Your task to perform on an android device: toggle data saver in the chrome app Image 0: 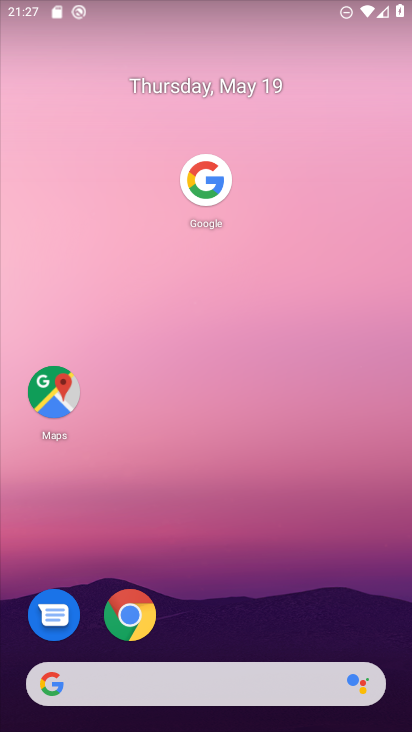
Step 0: click (132, 618)
Your task to perform on an android device: toggle data saver in the chrome app Image 1: 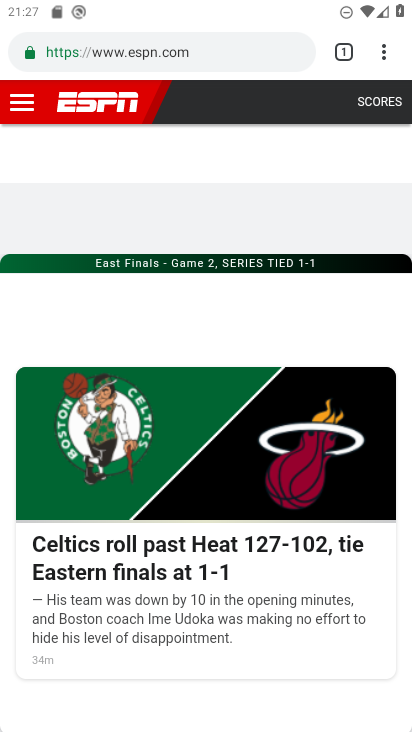
Step 1: click (377, 57)
Your task to perform on an android device: toggle data saver in the chrome app Image 2: 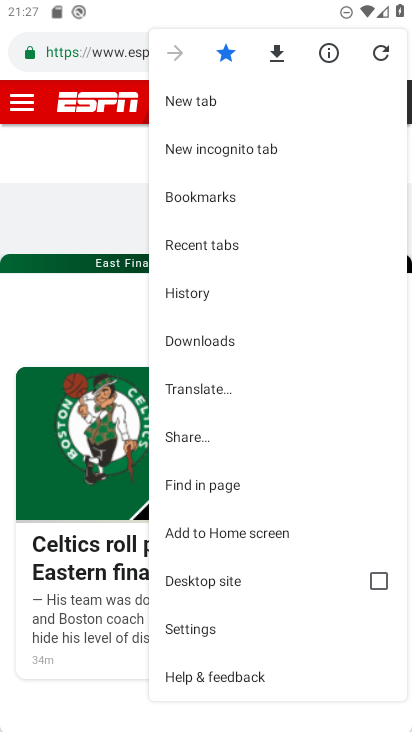
Step 2: click (225, 619)
Your task to perform on an android device: toggle data saver in the chrome app Image 3: 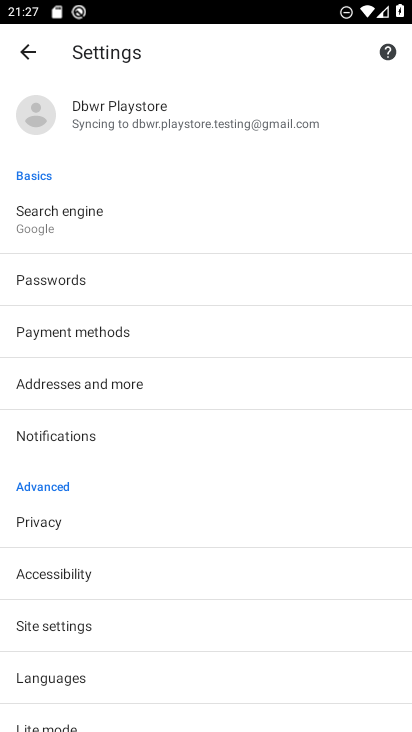
Step 3: drag from (71, 648) to (67, 449)
Your task to perform on an android device: toggle data saver in the chrome app Image 4: 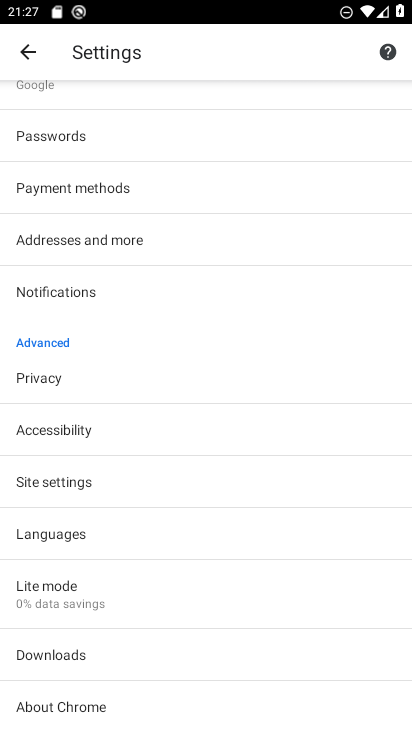
Step 4: click (63, 581)
Your task to perform on an android device: toggle data saver in the chrome app Image 5: 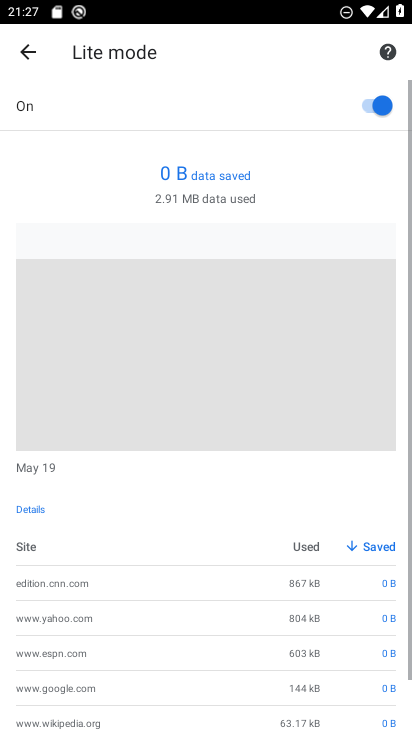
Step 5: click (373, 116)
Your task to perform on an android device: toggle data saver in the chrome app Image 6: 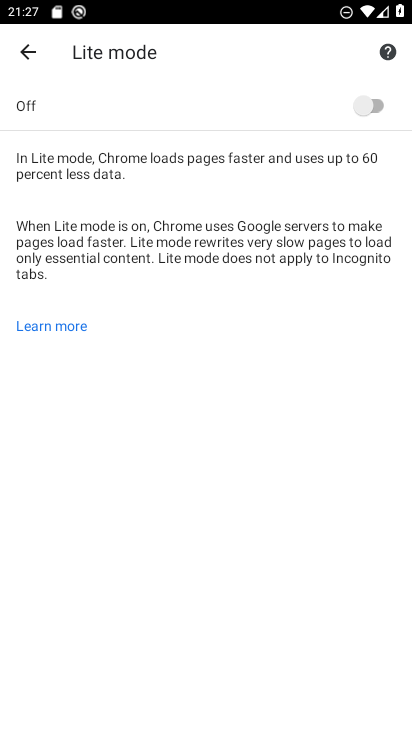
Step 6: task complete